Your task to perform on an android device: Is it going to rain this weekend? Image 0: 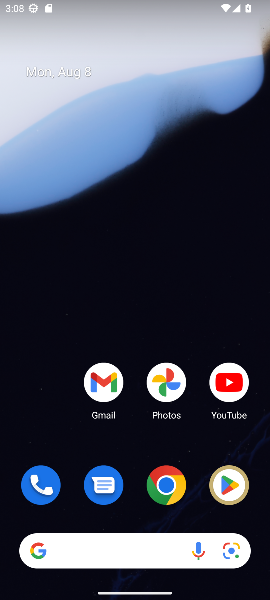
Step 0: drag from (188, 532) to (118, 111)
Your task to perform on an android device: Is it going to rain this weekend? Image 1: 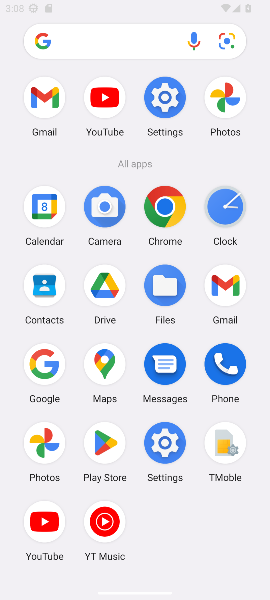
Step 1: drag from (114, 390) to (120, 128)
Your task to perform on an android device: Is it going to rain this weekend? Image 2: 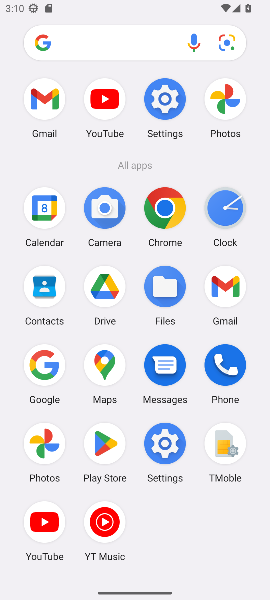
Step 2: click (166, 208)
Your task to perform on an android device: Is it going to rain this weekend? Image 3: 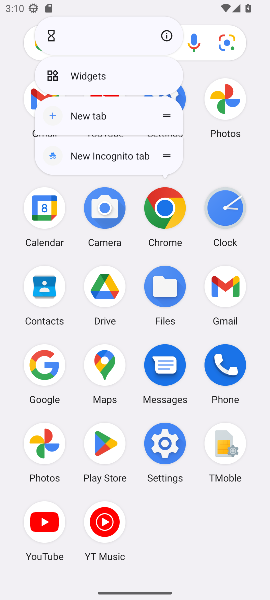
Step 3: click (166, 208)
Your task to perform on an android device: Is it going to rain this weekend? Image 4: 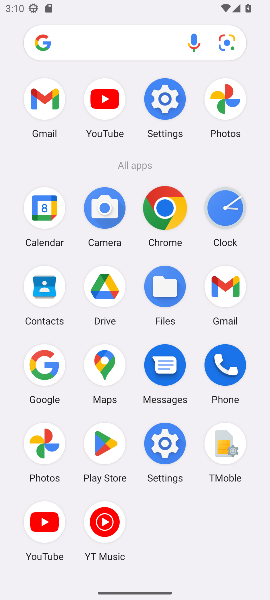
Step 4: click (166, 208)
Your task to perform on an android device: Is it going to rain this weekend? Image 5: 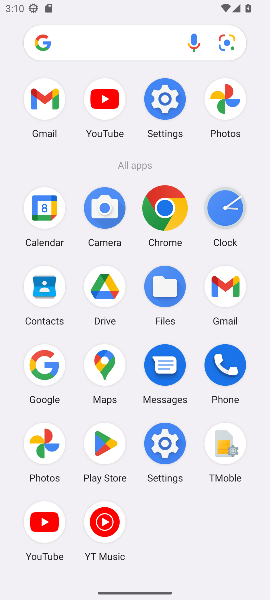
Step 5: click (166, 208)
Your task to perform on an android device: Is it going to rain this weekend? Image 6: 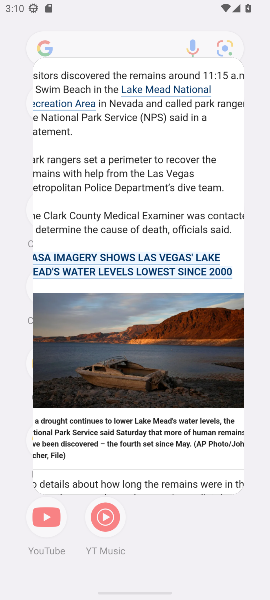
Step 6: click (166, 208)
Your task to perform on an android device: Is it going to rain this weekend? Image 7: 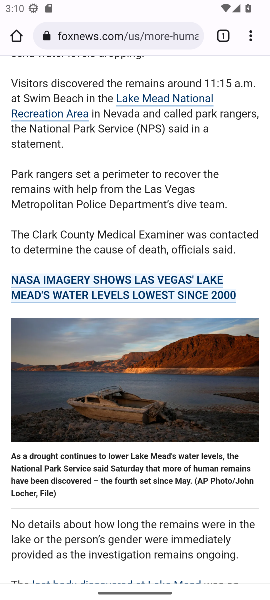
Step 7: click (250, 38)
Your task to perform on an android device: Is it going to rain this weekend? Image 8: 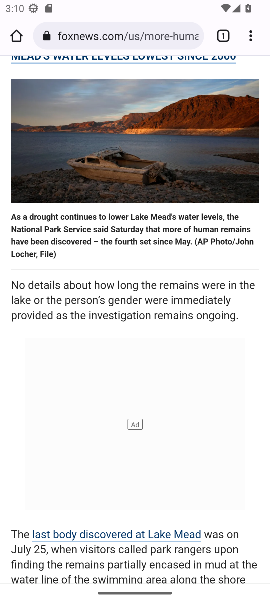
Step 8: drag from (247, 36) to (140, 71)
Your task to perform on an android device: Is it going to rain this weekend? Image 9: 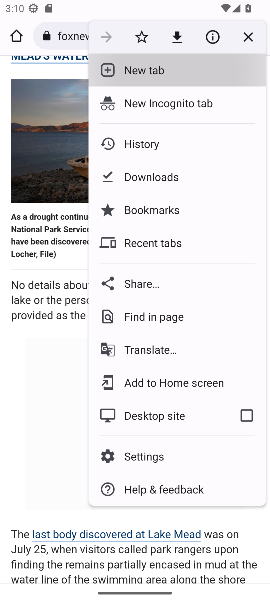
Step 9: click (139, 66)
Your task to perform on an android device: Is it going to rain this weekend? Image 10: 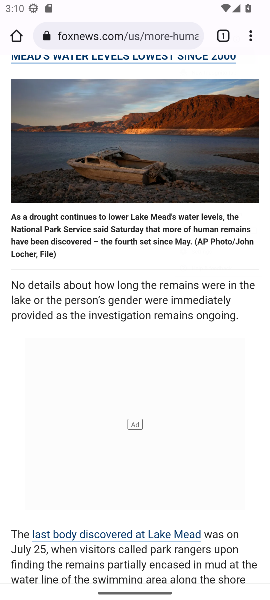
Step 10: click (139, 65)
Your task to perform on an android device: Is it going to rain this weekend? Image 11: 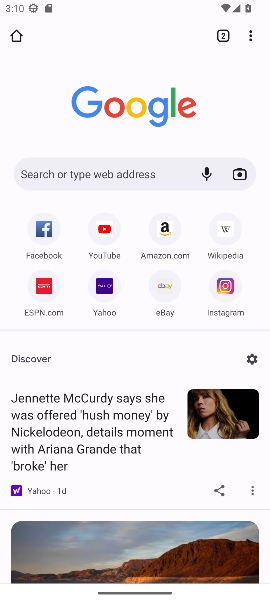
Step 11: click (56, 168)
Your task to perform on an android device: Is it going to rain this weekend? Image 12: 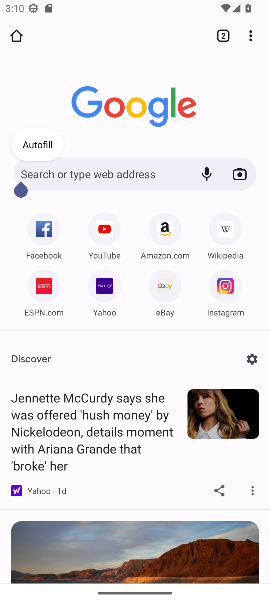
Step 12: click (43, 165)
Your task to perform on an android device: Is it going to rain this weekend? Image 13: 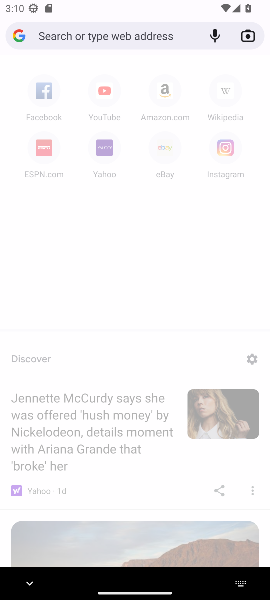
Step 13: type "is it going to rain this weekend"
Your task to perform on an android device: Is it going to rain this weekend? Image 14: 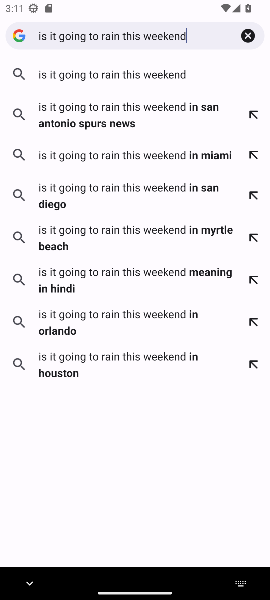
Step 14: click (117, 77)
Your task to perform on an android device: Is it going to rain this weekend? Image 15: 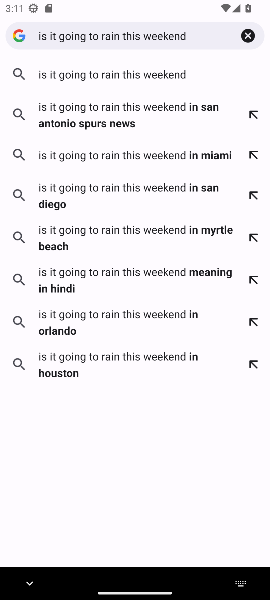
Step 15: click (118, 76)
Your task to perform on an android device: Is it going to rain this weekend? Image 16: 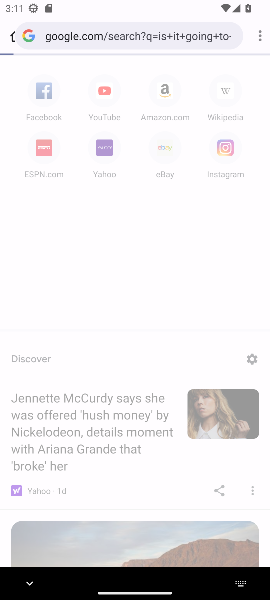
Step 16: click (120, 77)
Your task to perform on an android device: Is it going to rain this weekend? Image 17: 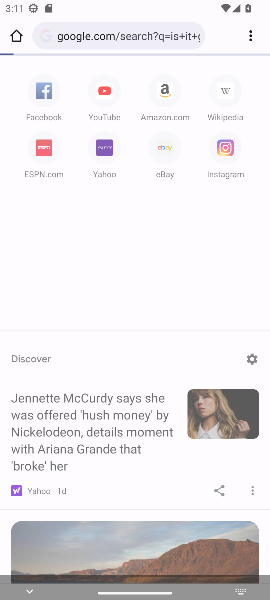
Step 17: click (126, 78)
Your task to perform on an android device: Is it going to rain this weekend? Image 18: 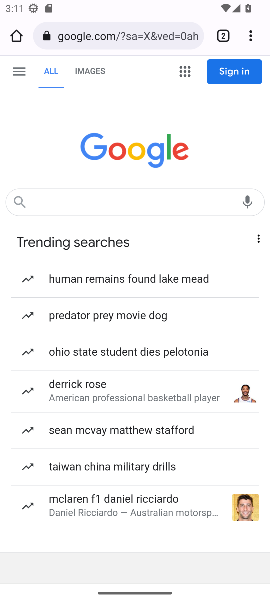
Step 18: task complete